Your task to perform on an android device: Open the calendar and show me this week's events? Image 0: 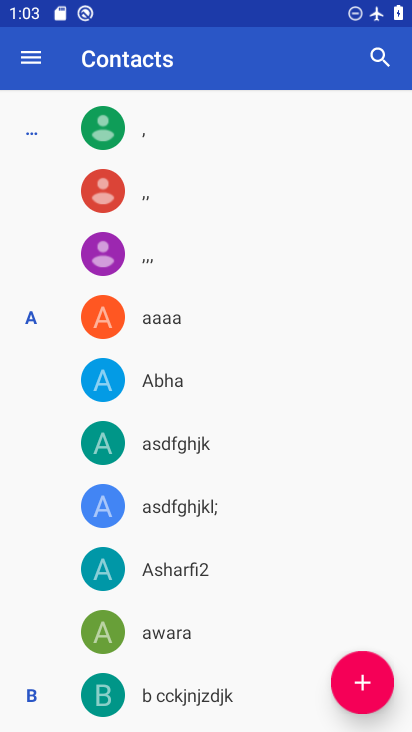
Step 0: press home button
Your task to perform on an android device: Open the calendar and show me this week's events? Image 1: 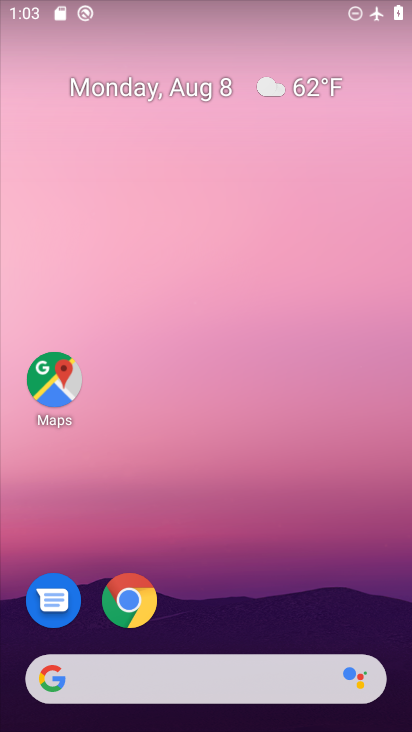
Step 1: drag from (210, 605) to (176, 11)
Your task to perform on an android device: Open the calendar and show me this week's events? Image 2: 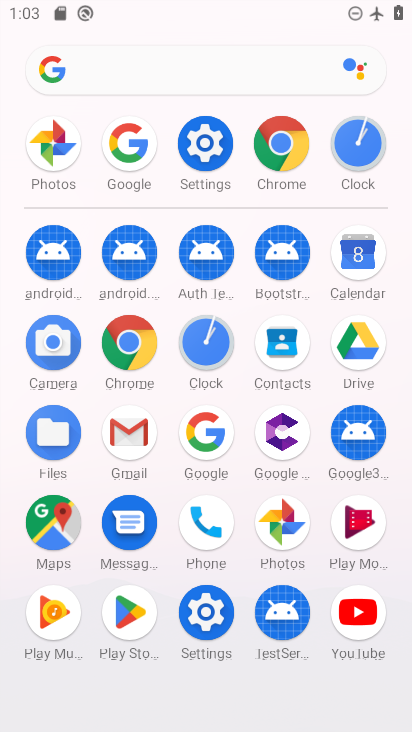
Step 2: click (359, 255)
Your task to perform on an android device: Open the calendar and show me this week's events? Image 3: 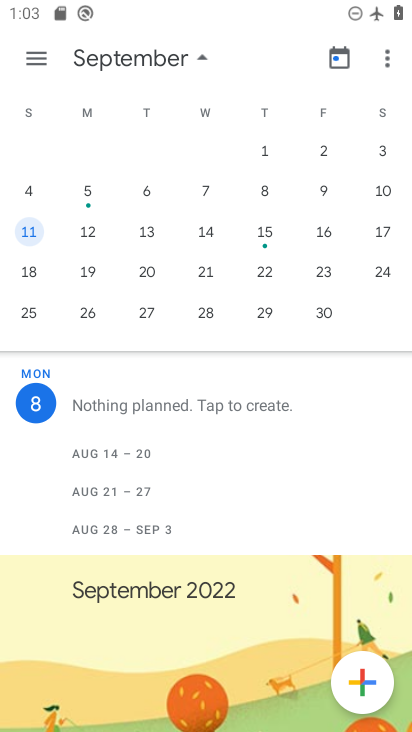
Step 3: task complete